Your task to perform on an android device: find photos in the google photos app Image 0: 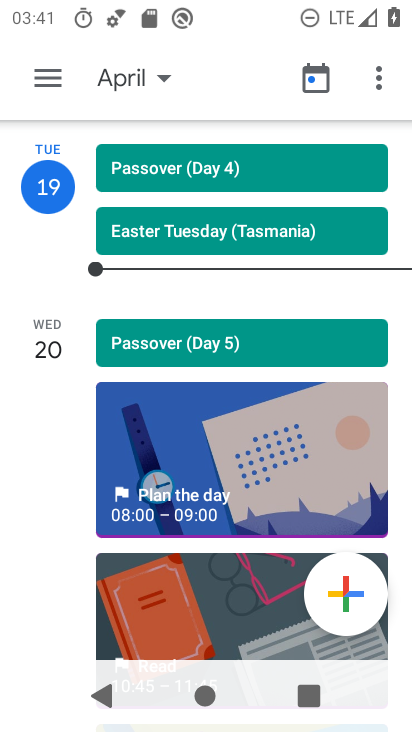
Step 0: press home button
Your task to perform on an android device: find photos in the google photos app Image 1: 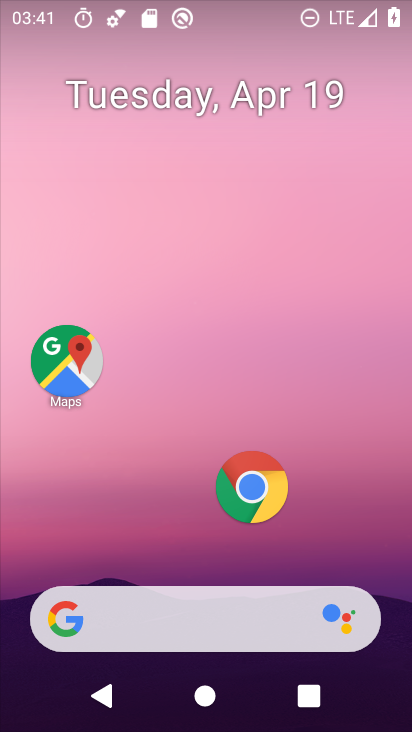
Step 1: drag from (148, 480) to (237, 57)
Your task to perform on an android device: find photos in the google photos app Image 2: 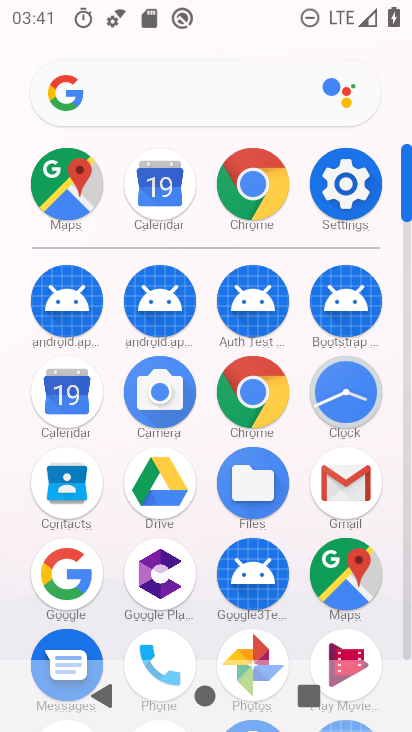
Step 2: click (254, 633)
Your task to perform on an android device: find photos in the google photos app Image 3: 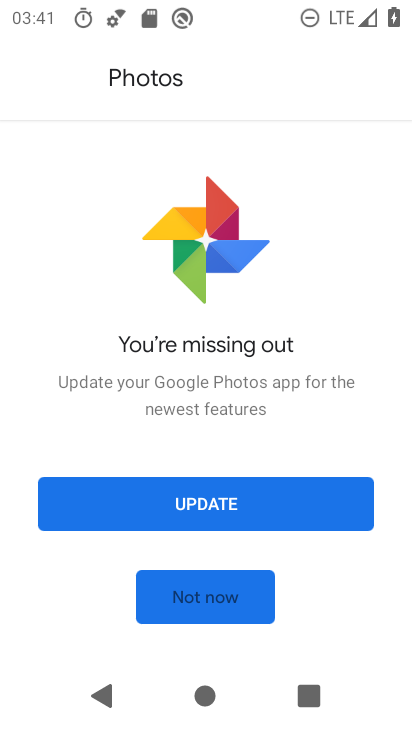
Step 3: click (203, 606)
Your task to perform on an android device: find photos in the google photos app Image 4: 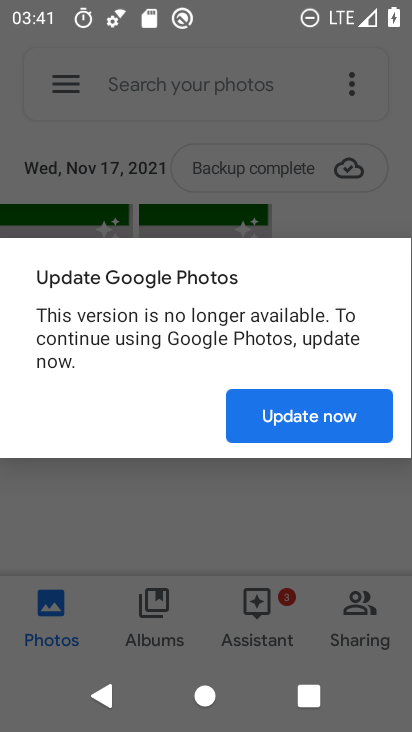
Step 4: click (243, 510)
Your task to perform on an android device: find photos in the google photos app Image 5: 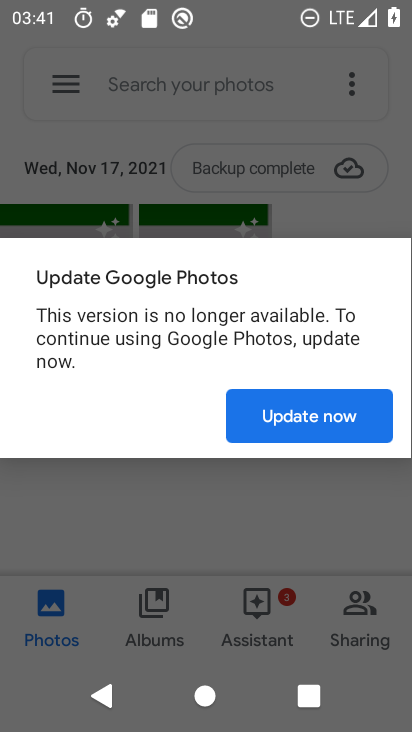
Step 5: click (307, 429)
Your task to perform on an android device: find photos in the google photos app Image 6: 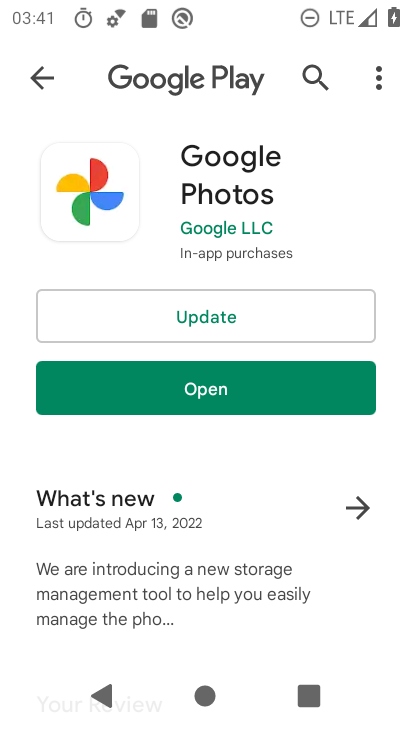
Step 6: click (216, 377)
Your task to perform on an android device: find photos in the google photos app Image 7: 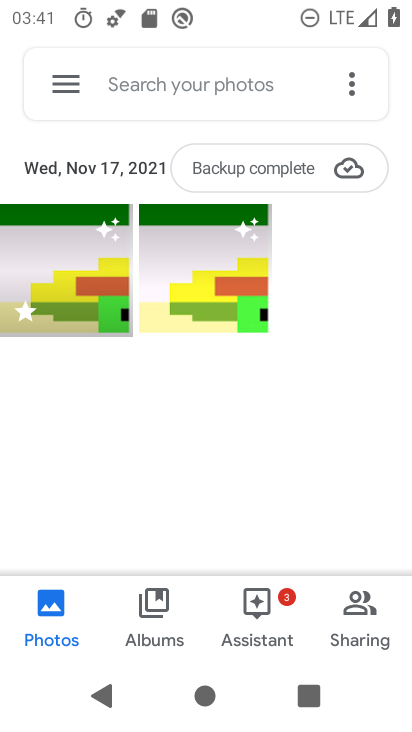
Step 7: click (53, 606)
Your task to perform on an android device: find photos in the google photos app Image 8: 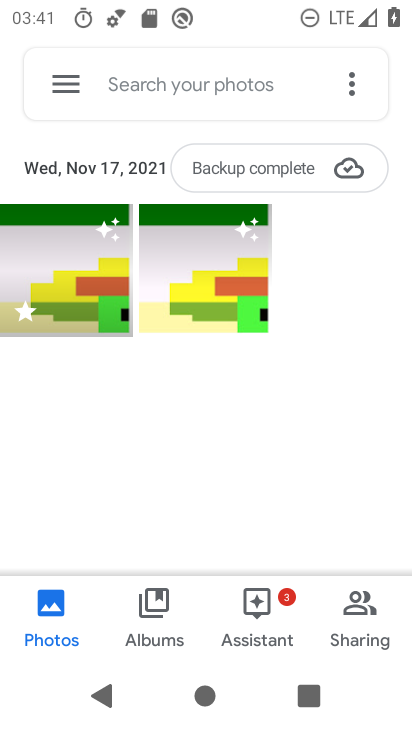
Step 8: task complete